Your task to perform on an android device: Turn on the flashlight Image 0: 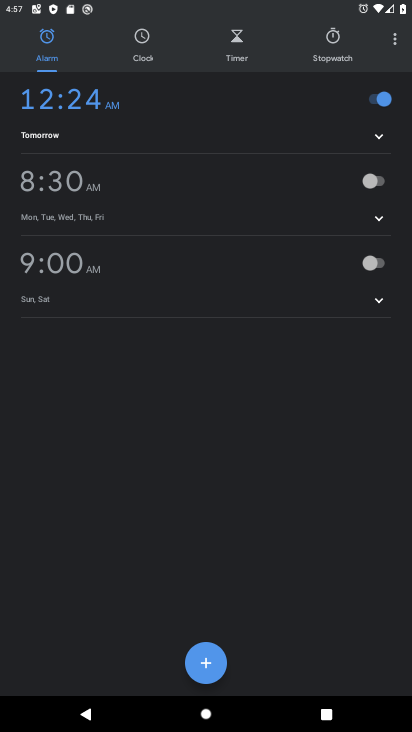
Step 0: press home button
Your task to perform on an android device: Turn on the flashlight Image 1: 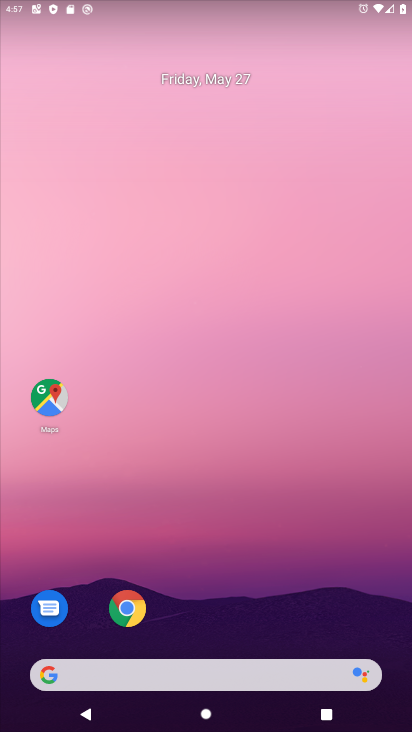
Step 1: drag from (234, 21) to (234, 537)
Your task to perform on an android device: Turn on the flashlight Image 2: 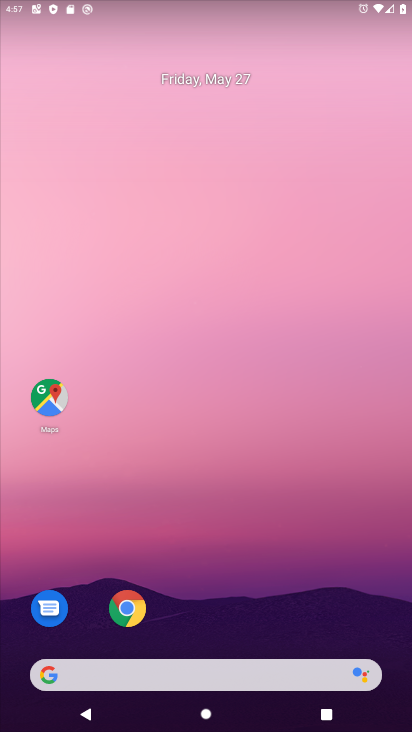
Step 2: drag from (257, 1) to (274, 454)
Your task to perform on an android device: Turn on the flashlight Image 3: 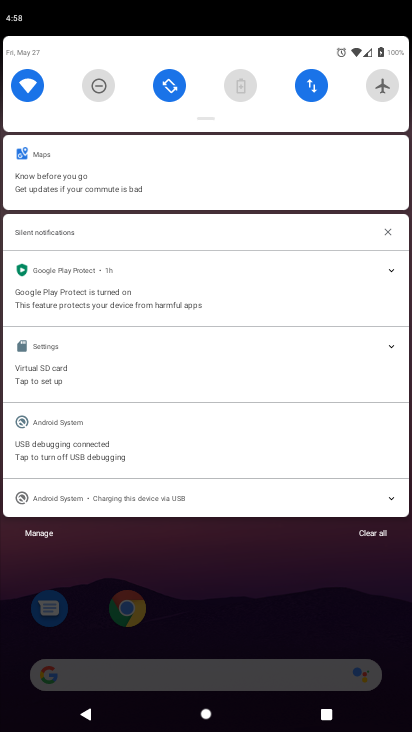
Step 3: drag from (253, 137) to (296, 512)
Your task to perform on an android device: Turn on the flashlight Image 4: 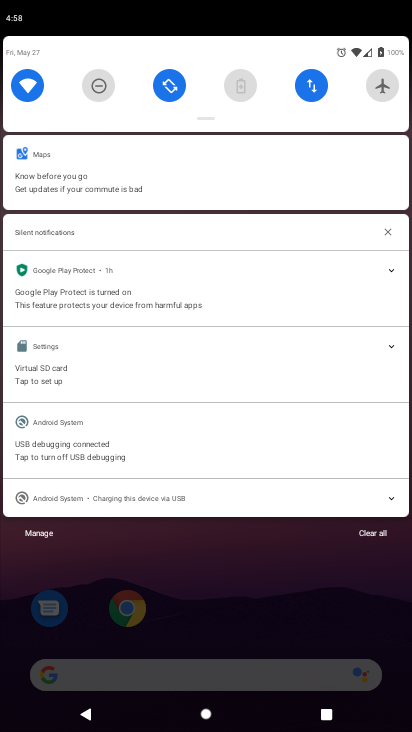
Step 4: drag from (364, 68) to (387, 531)
Your task to perform on an android device: Turn on the flashlight Image 5: 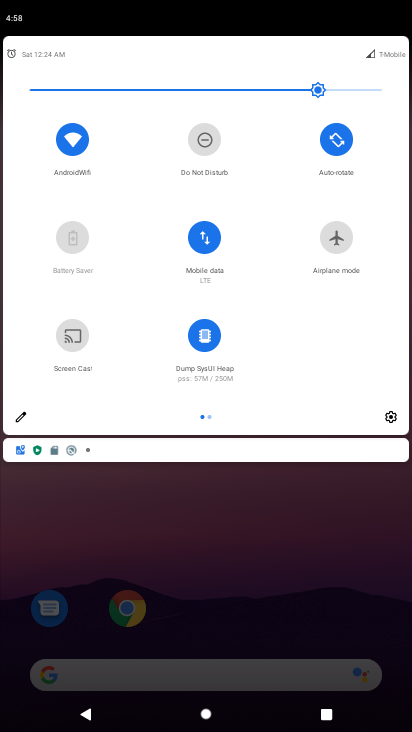
Step 5: drag from (379, 286) to (26, 372)
Your task to perform on an android device: Turn on the flashlight Image 6: 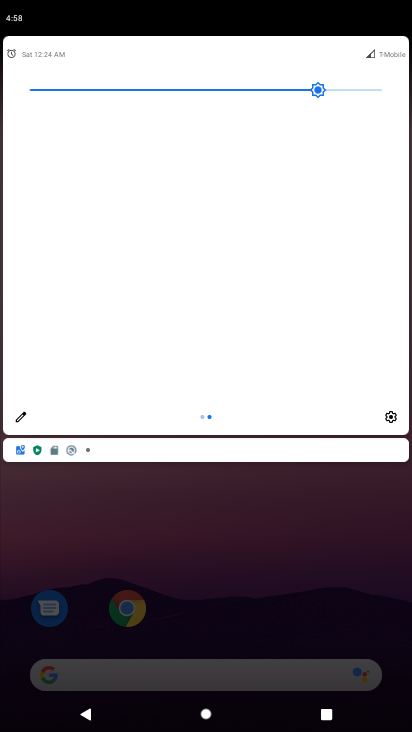
Step 6: click (26, 415)
Your task to perform on an android device: Turn on the flashlight Image 7: 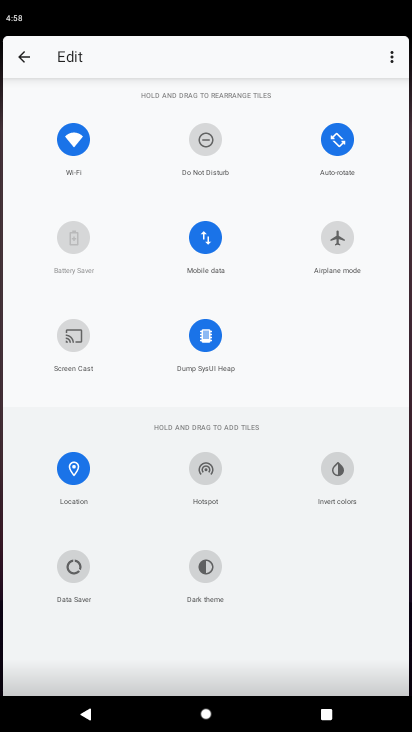
Step 7: task complete